Your task to perform on an android device: turn off javascript in the chrome app Image 0: 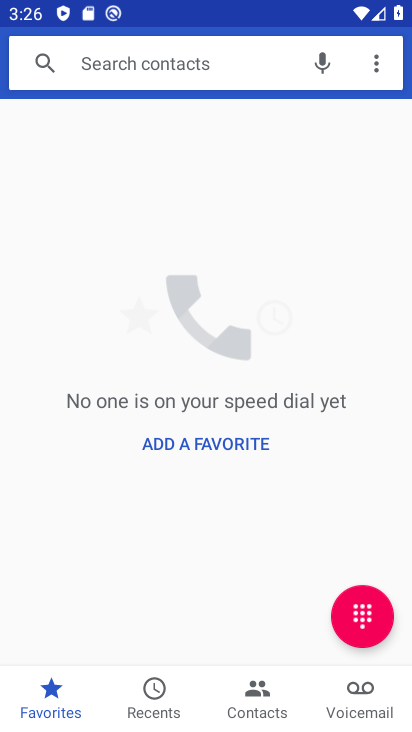
Step 0: press home button
Your task to perform on an android device: turn off javascript in the chrome app Image 1: 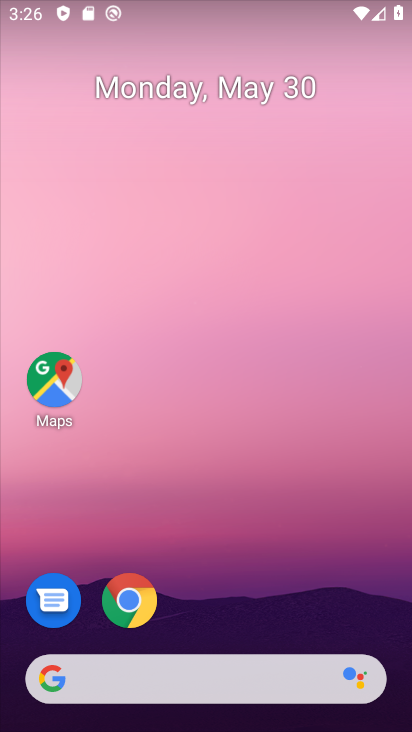
Step 1: drag from (241, 608) to (185, 116)
Your task to perform on an android device: turn off javascript in the chrome app Image 2: 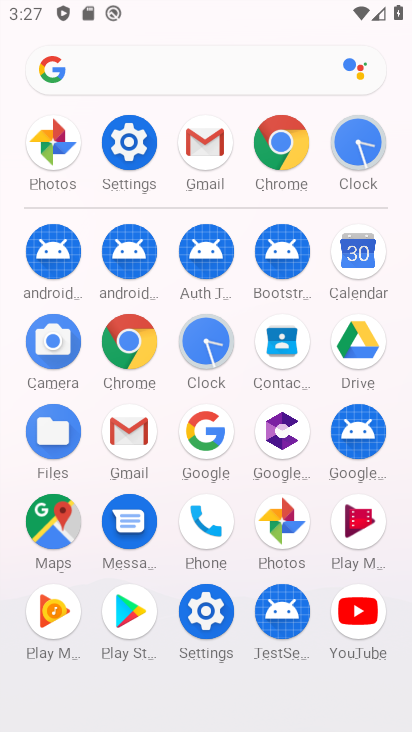
Step 2: click (288, 140)
Your task to perform on an android device: turn off javascript in the chrome app Image 3: 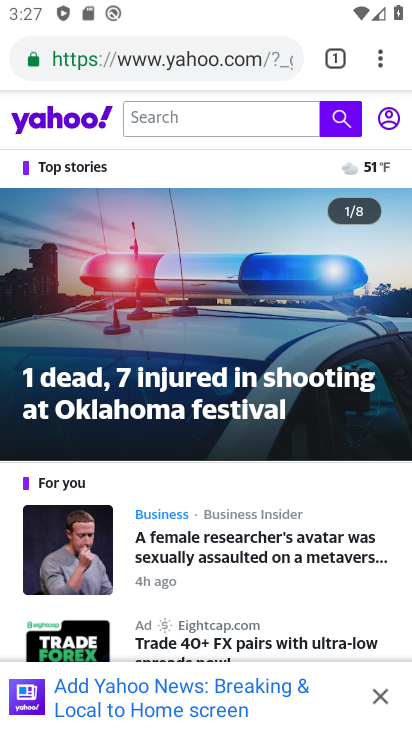
Step 3: click (390, 51)
Your task to perform on an android device: turn off javascript in the chrome app Image 4: 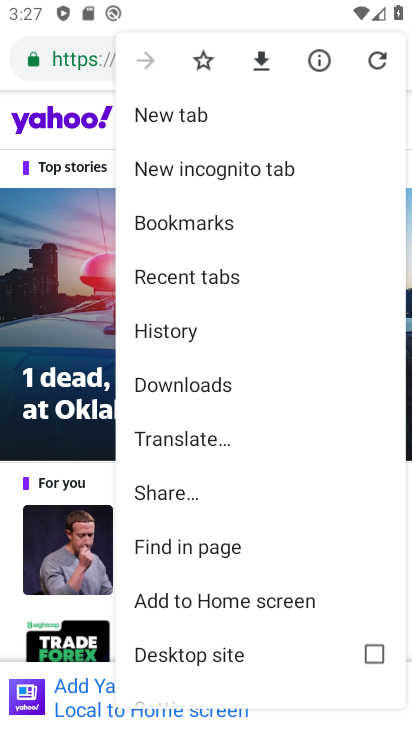
Step 4: drag from (198, 601) to (205, 247)
Your task to perform on an android device: turn off javascript in the chrome app Image 5: 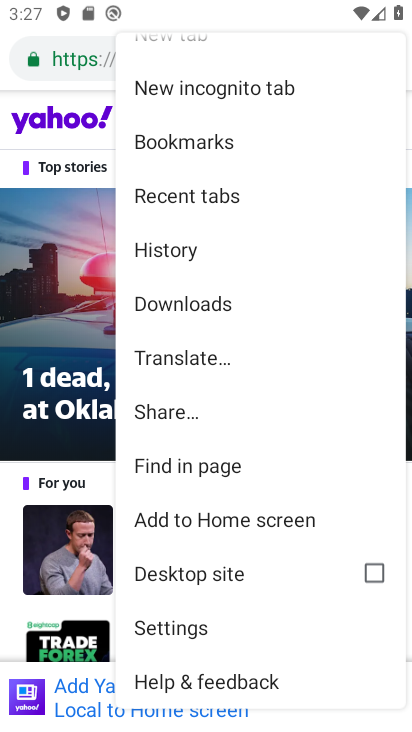
Step 5: click (202, 641)
Your task to perform on an android device: turn off javascript in the chrome app Image 6: 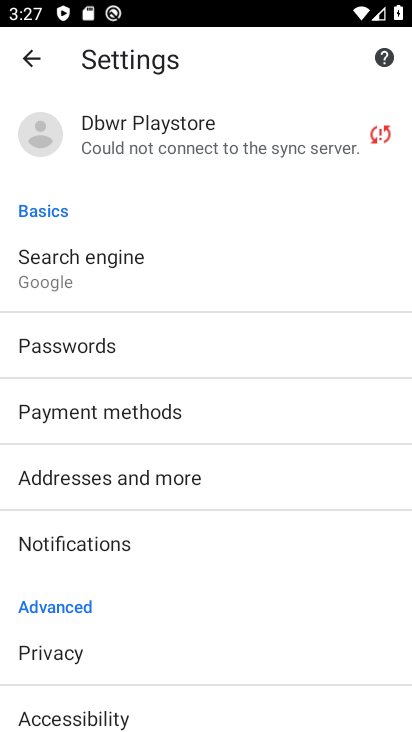
Step 6: drag from (217, 672) to (180, 251)
Your task to perform on an android device: turn off javascript in the chrome app Image 7: 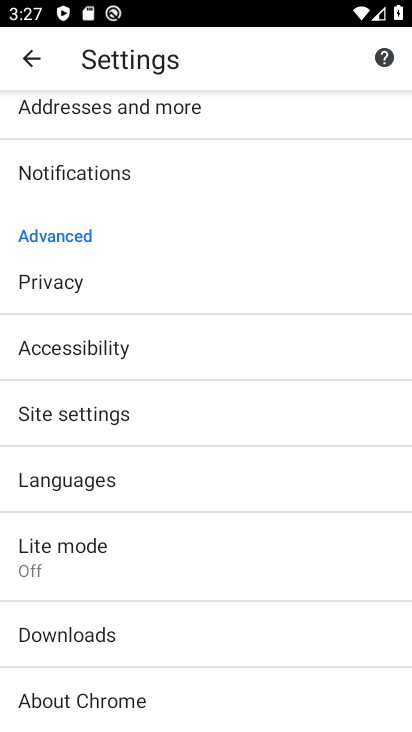
Step 7: click (154, 423)
Your task to perform on an android device: turn off javascript in the chrome app Image 8: 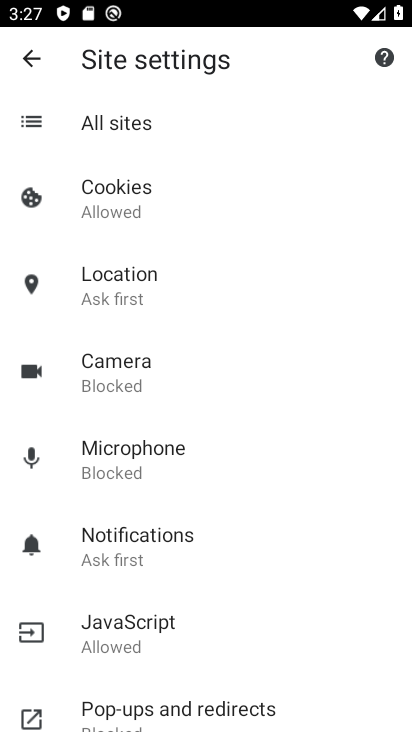
Step 8: click (189, 623)
Your task to perform on an android device: turn off javascript in the chrome app Image 9: 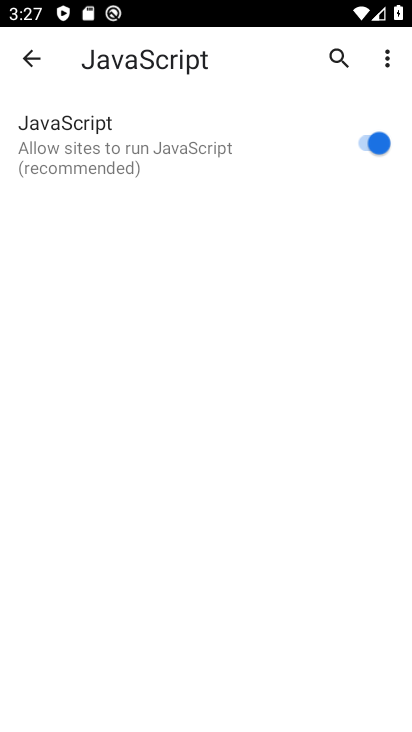
Step 9: click (373, 150)
Your task to perform on an android device: turn off javascript in the chrome app Image 10: 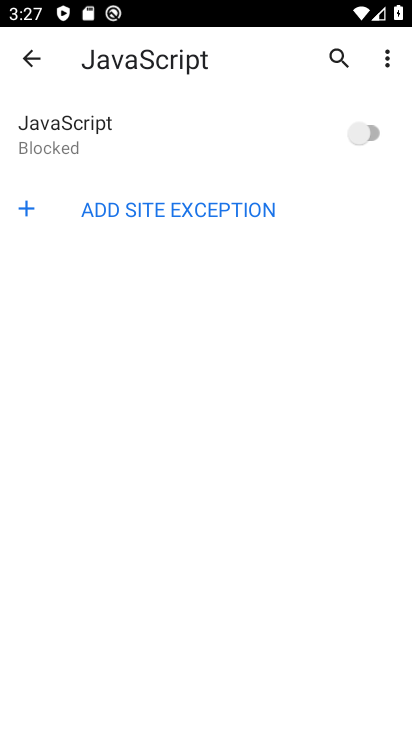
Step 10: task complete